Your task to perform on an android device: open chrome privacy settings Image 0: 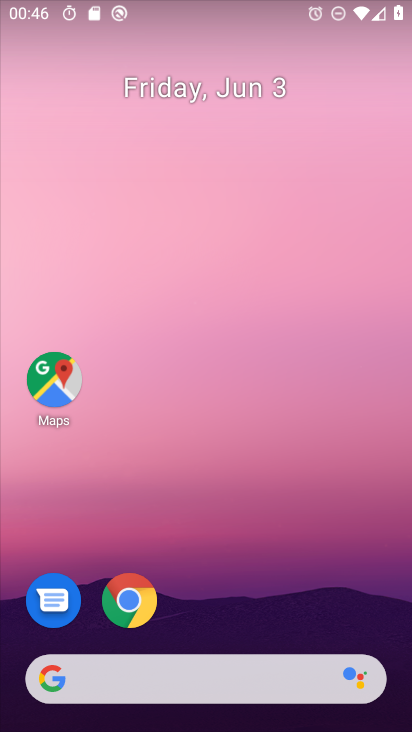
Step 0: click (135, 603)
Your task to perform on an android device: open chrome privacy settings Image 1: 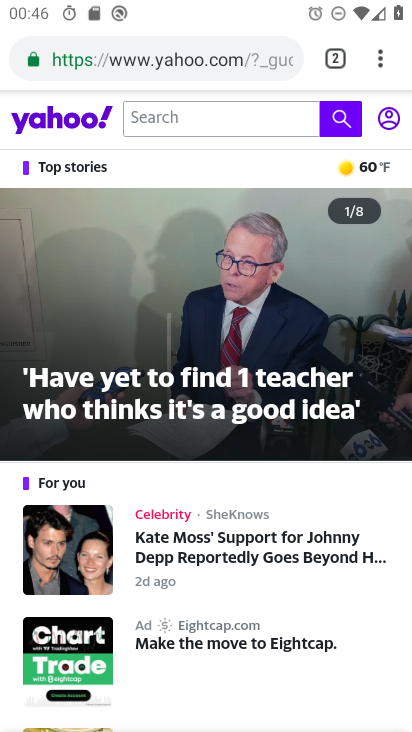
Step 1: click (366, 66)
Your task to perform on an android device: open chrome privacy settings Image 2: 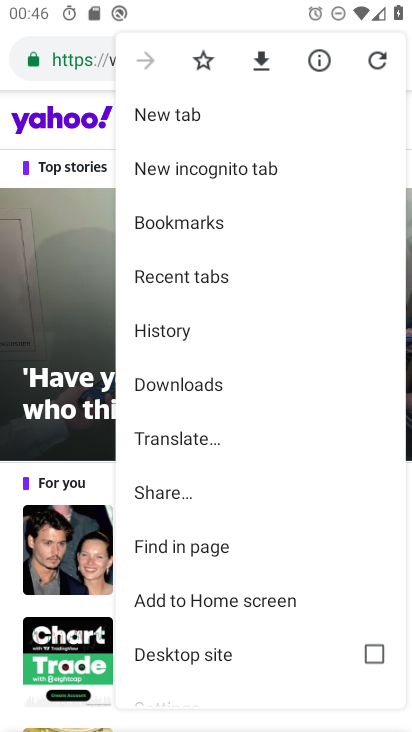
Step 2: drag from (219, 614) to (214, 277)
Your task to perform on an android device: open chrome privacy settings Image 3: 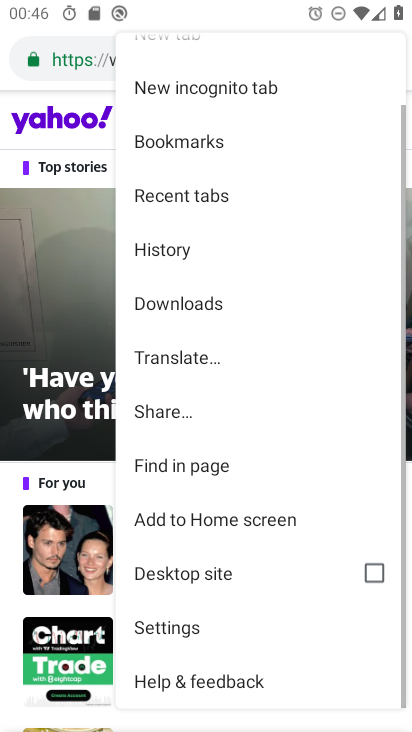
Step 3: click (170, 624)
Your task to perform on an android device: open chrome privacy settings Image 4: 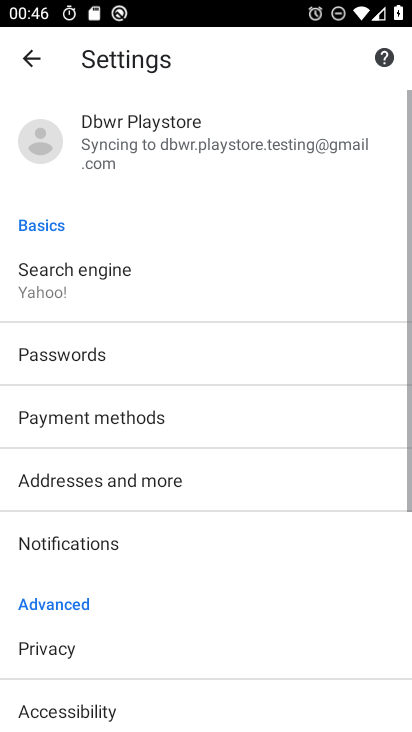
Step 4: click (61, 648)
Your task to perform on an android device: open chrome privacy settings Image 5: 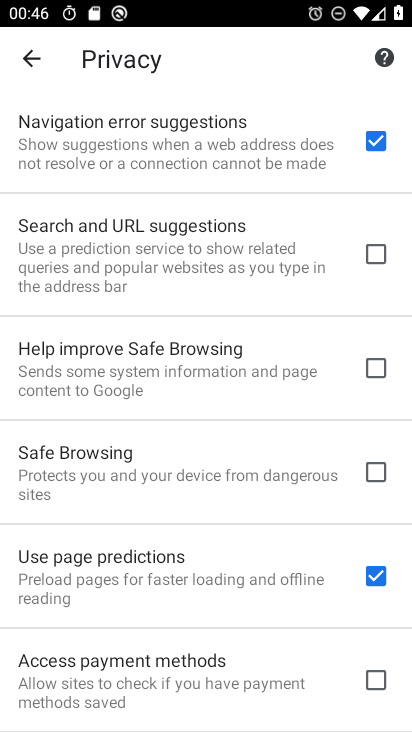
Step 5: task complete